Your task to perform on an android device: Open Google Chrome and open the bookmarks view Image 0: 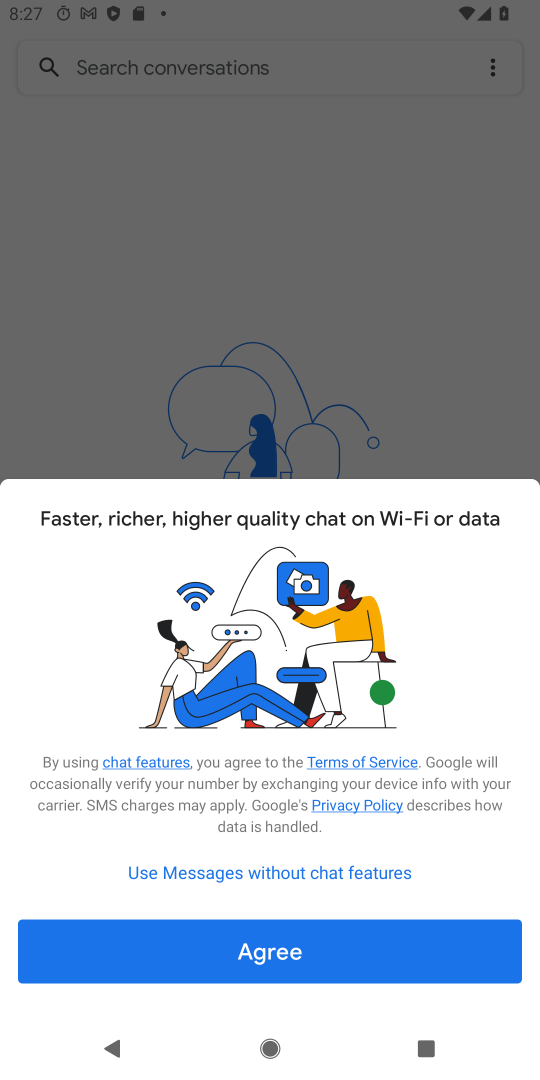
Step 0: press home button
Your task to perform on an android device: Open Google Chrome and open the bookmarks view Image 1: 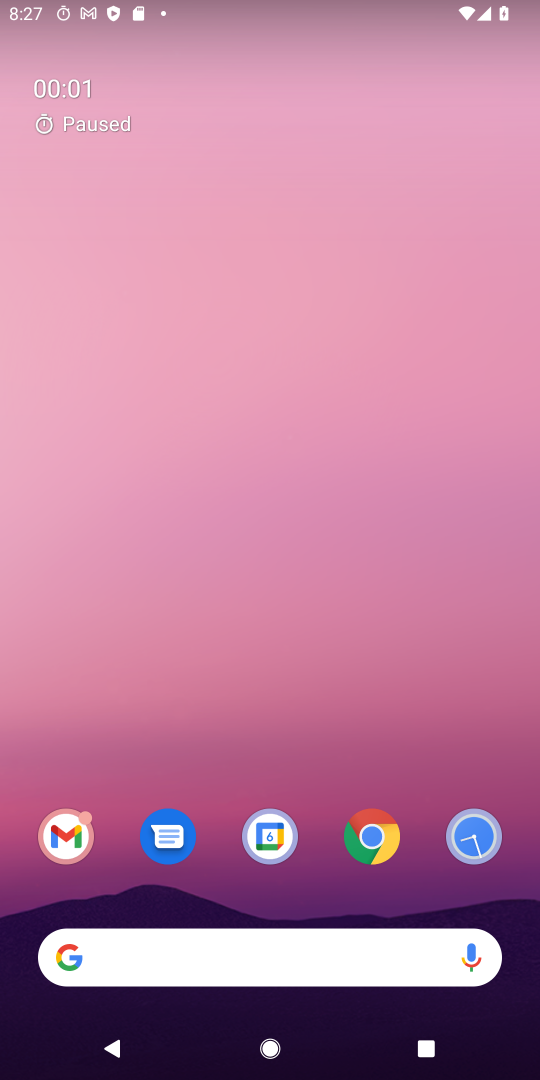
Step 1: drag from (504, 901) to (250, 61)
Your task to perform on an android device: Open Google Chrome and open the bookmarks view Image 2: 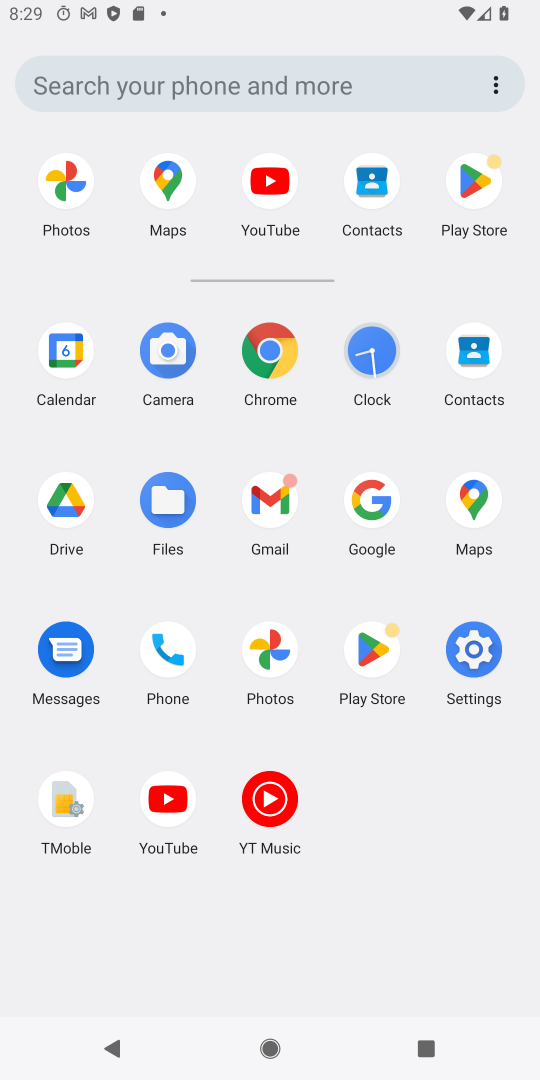
Step 2: click (279, 337)
Your task to perform on an android device: Open Google Chrome and open the bookmarks view Image 3: 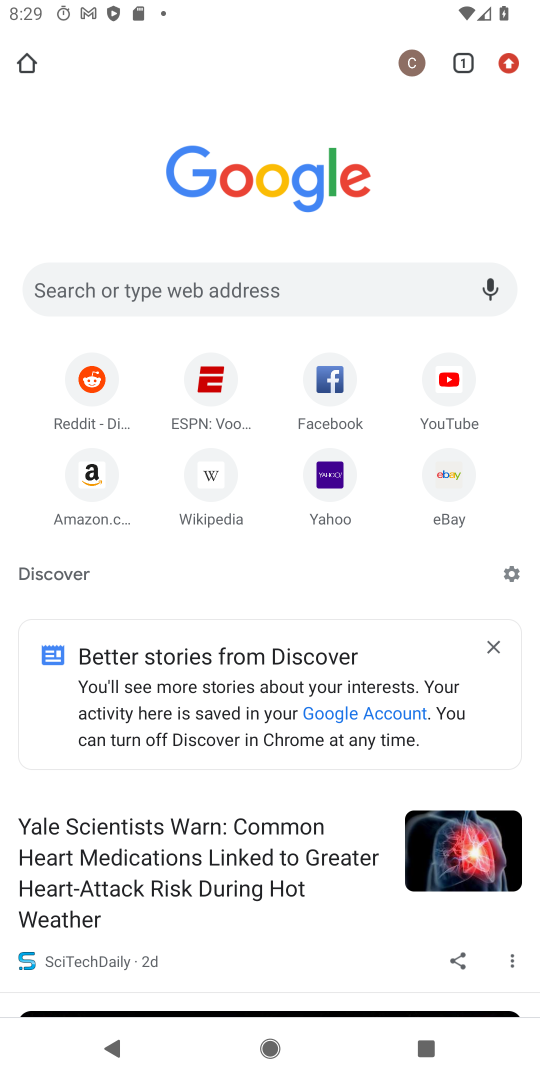
Step 3: click (508, 63)
Your task to perform on an android device: Open Google Chrome and open the bookmarks view Image 4: 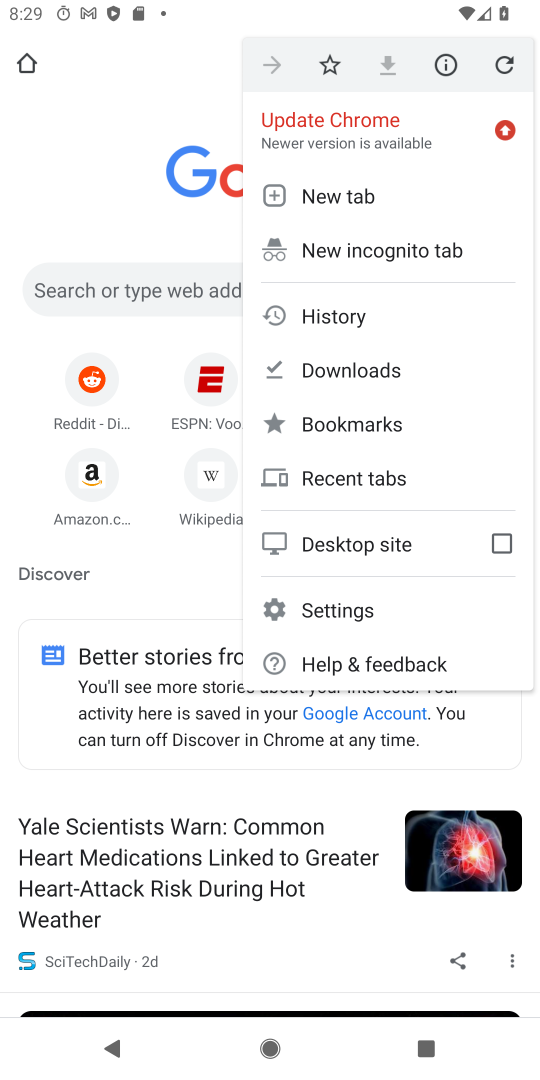
Step 4: click (359, 423)
Your task to perform on an android device: Open Google Chrome and open the bookmarks view Image 5: 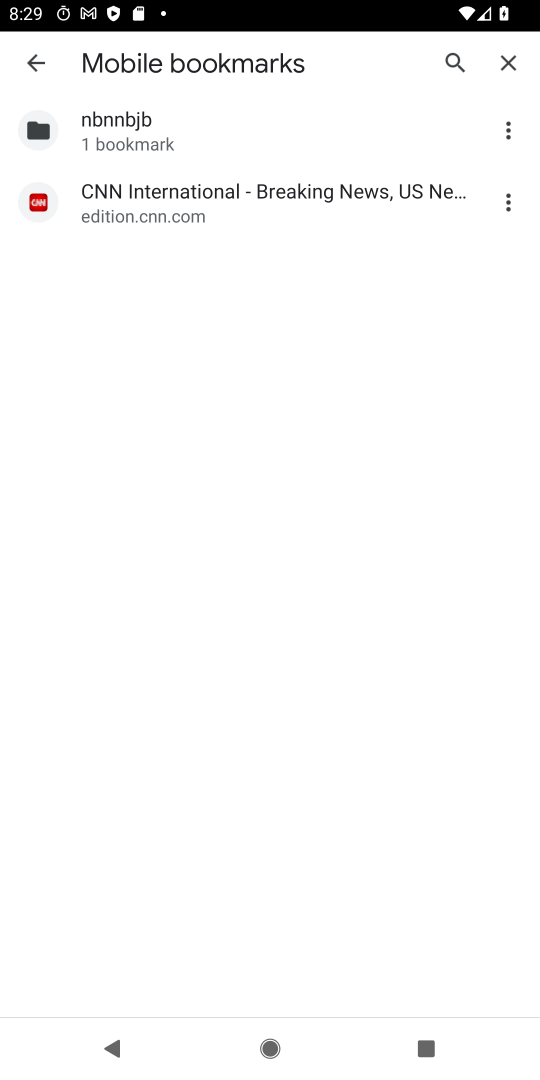
Step 5: task complete